Your task to perform on an android device: Open calendar and show me the first week of next month Image 0: 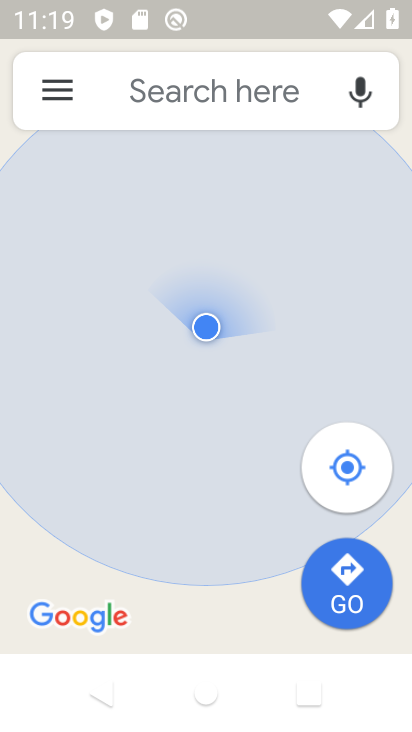
Step 0: press home button
Your task to perform on an android device: Open calendar and show me the first week of next month Image 1: 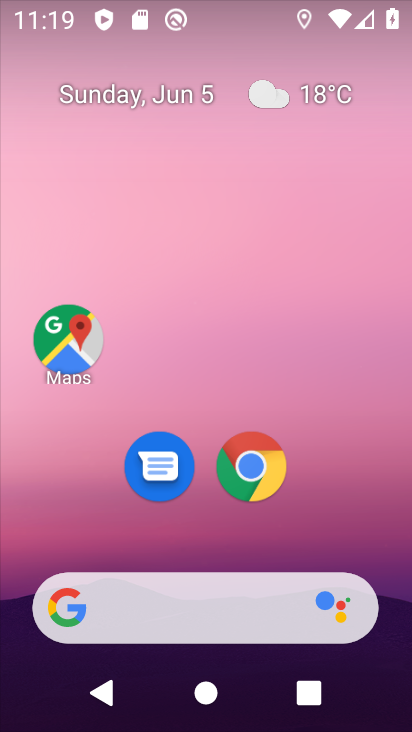
Step 1: drag from (331, 376) to (333, 164)
Your task to perform on an android device: Open calendar and show me the first week of next month Image 2: 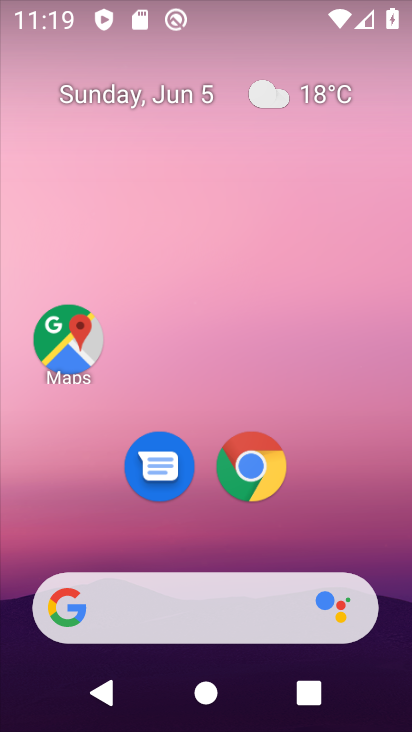
Step 2: drag from (306, 502) to (321, 190)
Your task to perform on an android device: Open calendar and show me the first week of next month Image 3: 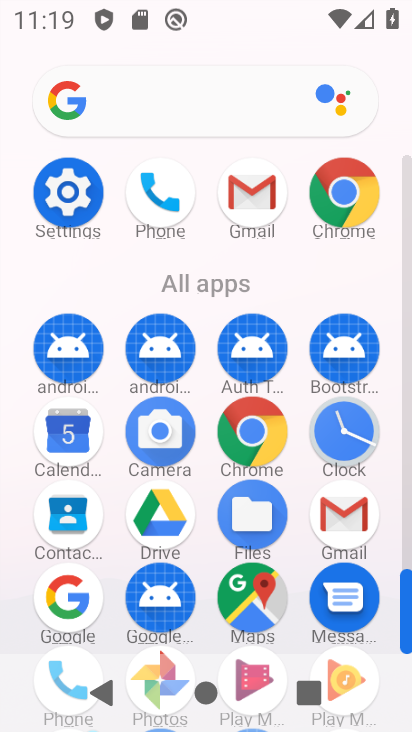
Step 3: click (58, 459)
Your task to perform on an android device: Open calendar and show me the first week of next month Image 4: 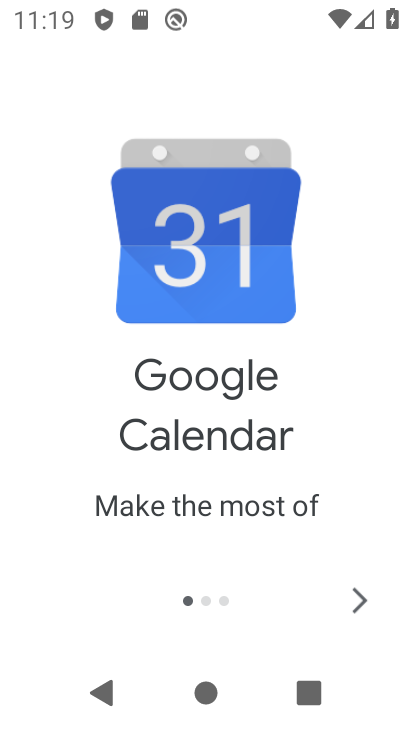
Step 4: click (352, 604)
Your task to perform on an android device: Open calendar and show me the first week of next month Image 5: 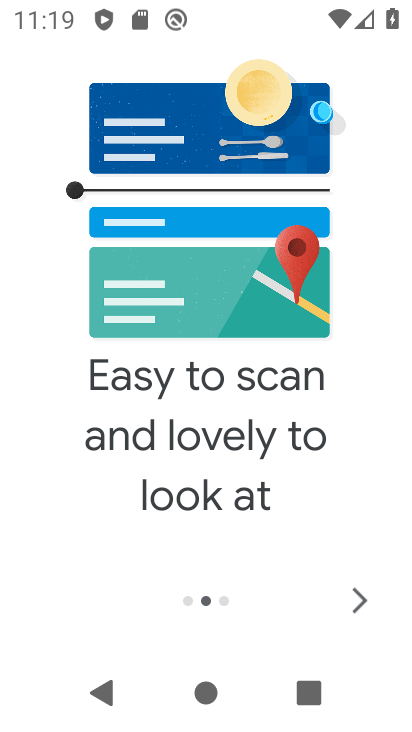
Step 5: click (352, 604)
Your task to perform on an android device: Open calendar and show me the first week of next month Image 6: 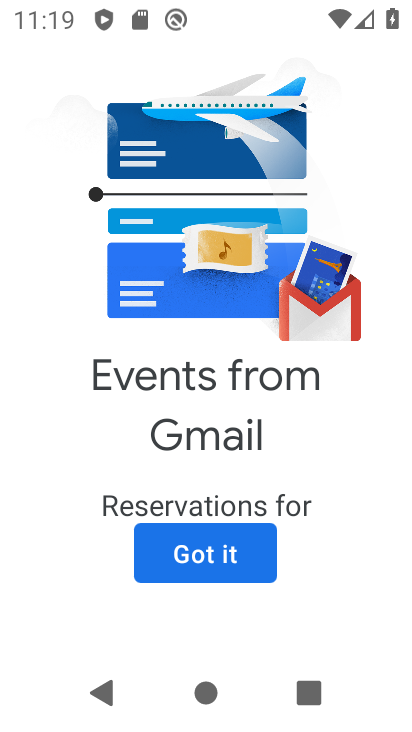
Step 6: click (227, 548)
Your task to perform on an android device: Open calendar and show me the first week of next month Image 7: 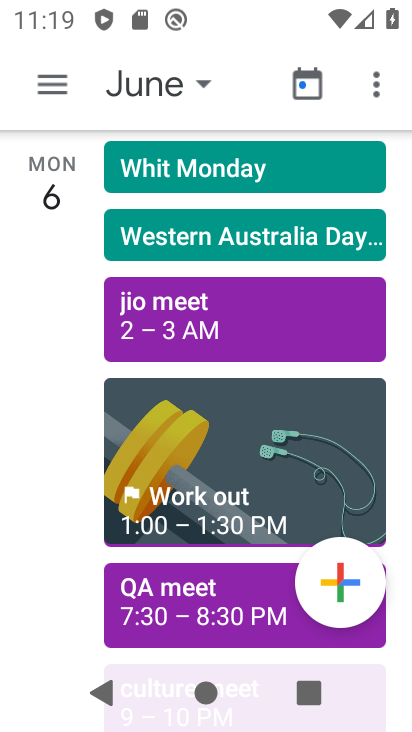
Step 7: click (165, 106)
Your task to perform on an android device: Open calendar and show me the first week of next month Image 8: 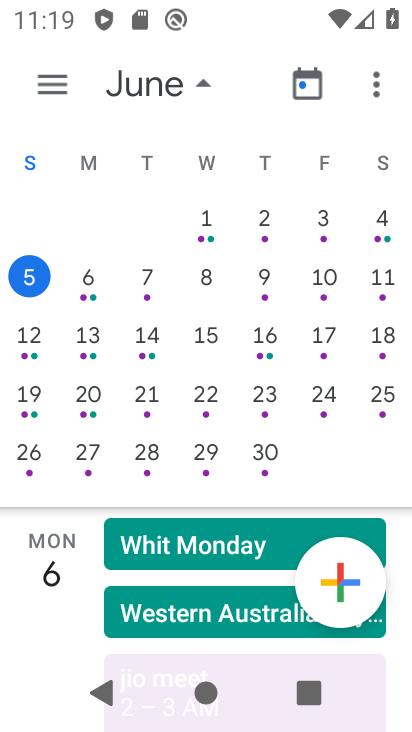
Step 8: drag from (334, 333) to (22, 342)
Your task to perform on an android device: Open calendar and show me the first week of next month Image 9: 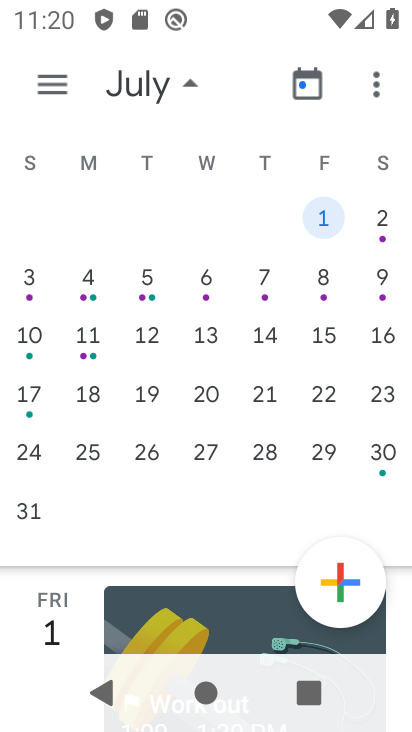
Step 9: click (319, 224)
Your task to perform on an android device: Open calendar and show me the first week of next month Image 10: 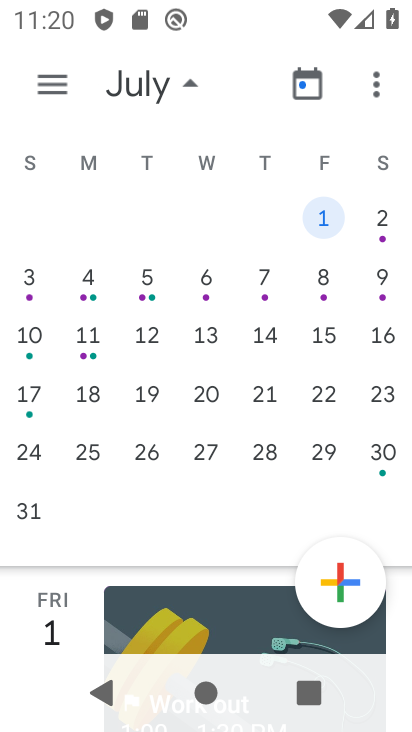
Step 10: task complete